Your task to perform on an android device: turn on translation in the chrome app Image 0: 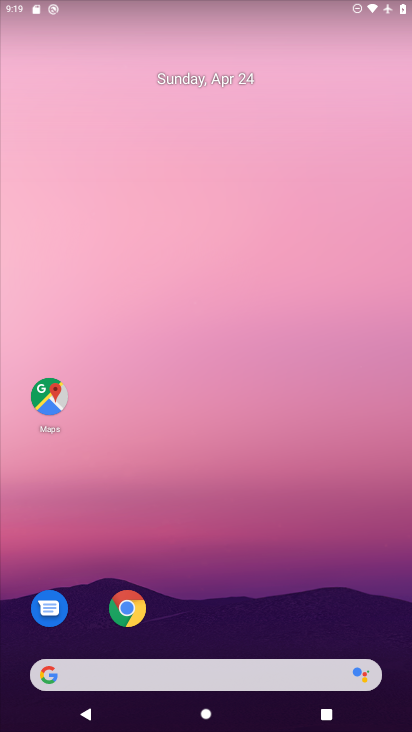
Step 0: click (117, 623)
Your task to perform on an android device: turn on translation in the chrome app Image 1: 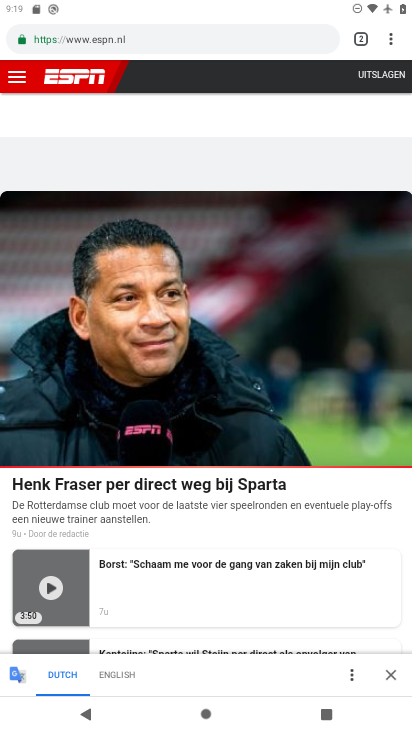
Step 1: click (396, 42)
Your task to perform on an android device: turn on translation in the chrome app Image 2: 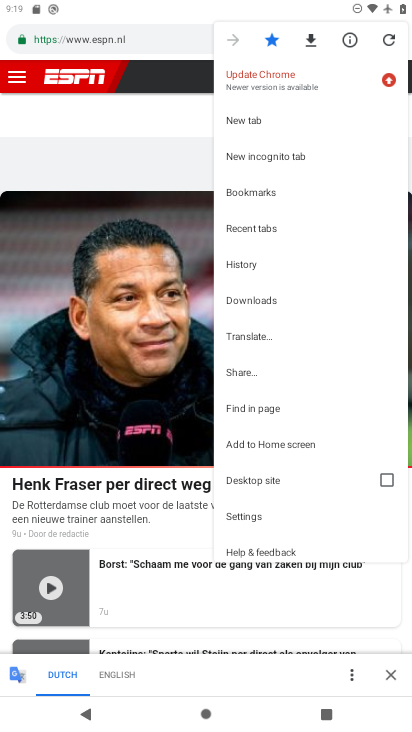
Step 2: click (257, 512)
Your task to perform on an android device: turn on translation in the chrome app Image 3: 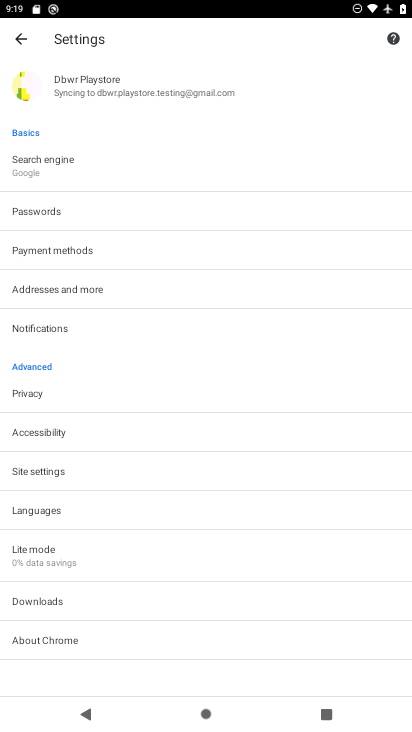
Step 3: click (101, 502)
Your task to perform on an android device: turn on translation in the chrome app Image 4: 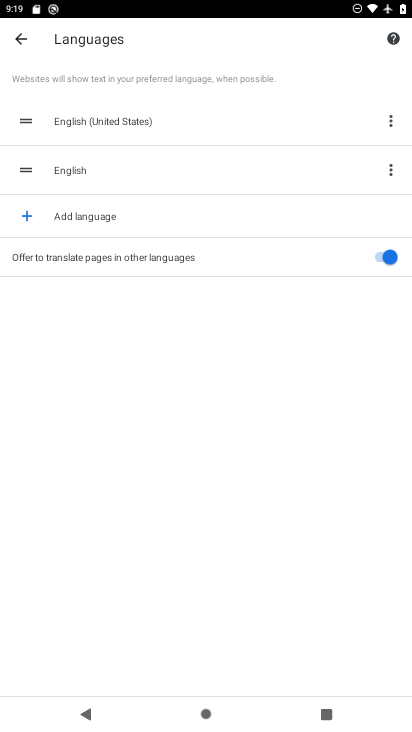
Step 4: task complete